Your task to perform on an android device: What's the weather today? Image 0: 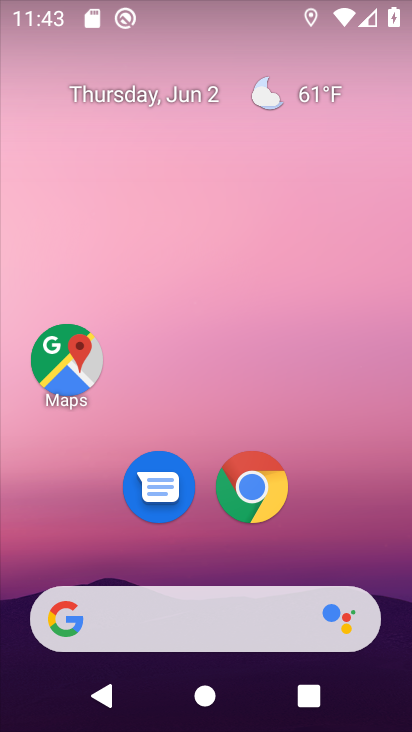
Step 0: drag from (338, 513) to (227, 133)
Your task to perform on an android device: What's the weather today? Image 1: 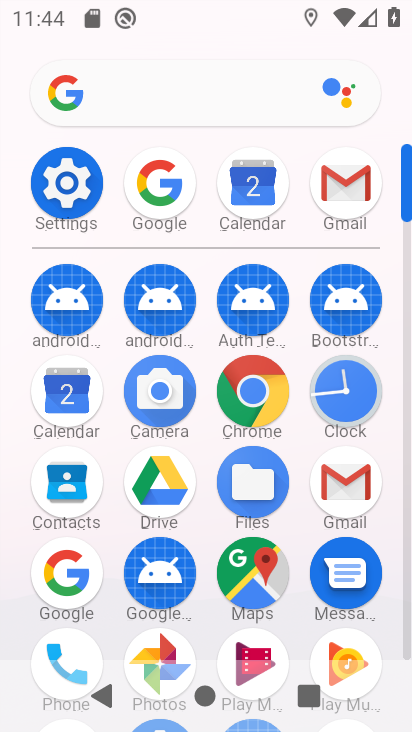
Step 1: click (154, 181)
Your task to perform on an android device: What's the weather today? Image 2: 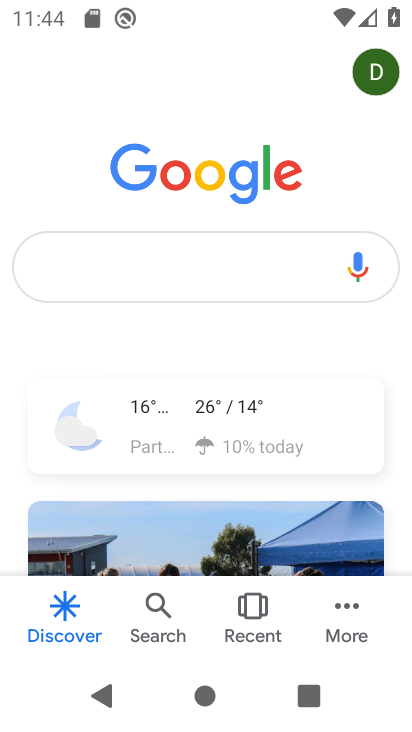
Step 2: click (207, 420)
Your task to perform on an android device: What's the weather today? Image 3: 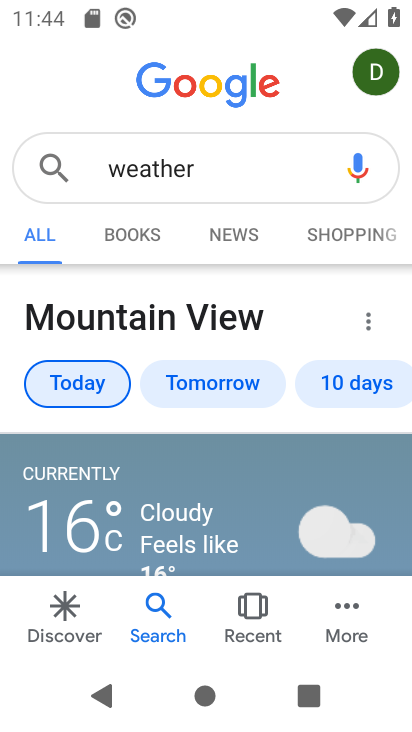
Step 3: task complete